Your task to perform on an android device: Show the shopping cart on ebay.com. Search for "lg ultragear" on ebay.com, select the first entry, and add it to the cart. Image 0: 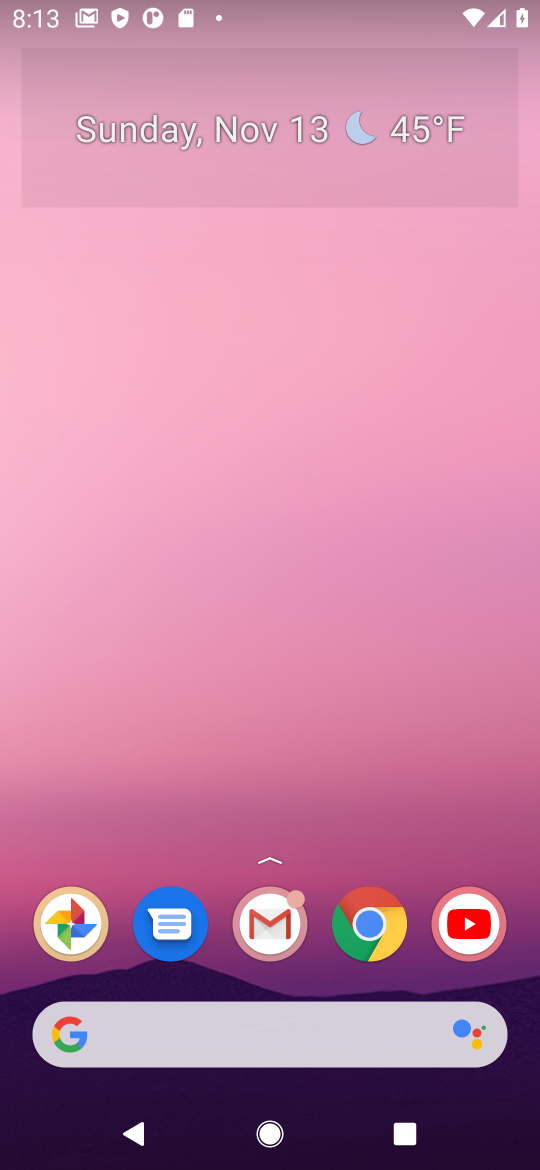
Step 0: click (356, 931)
Your task to perform on an android device: Show the shopping cart on ebay.com. Search for "lg ultragear" on ebay.com, select the first entry, and add it to the cart. Image 1: 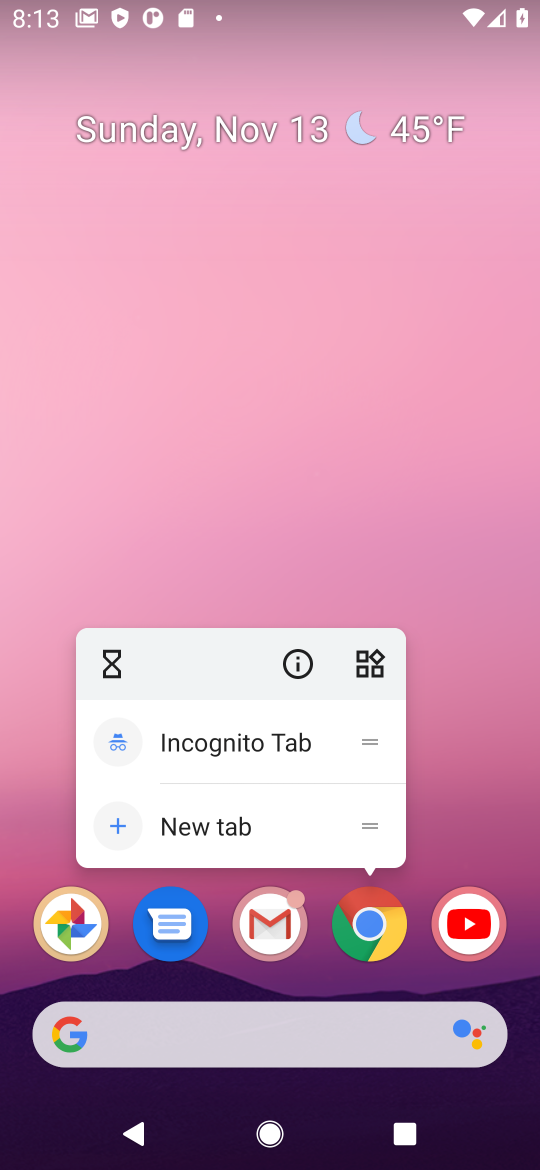
Step 1: click (356, 930)
Your task to perform on an android device: Show the shopping cart on ebay.com. Search for "lg ultragear" on ebay.com, select the first entry, and add it to the cart. Image 2: 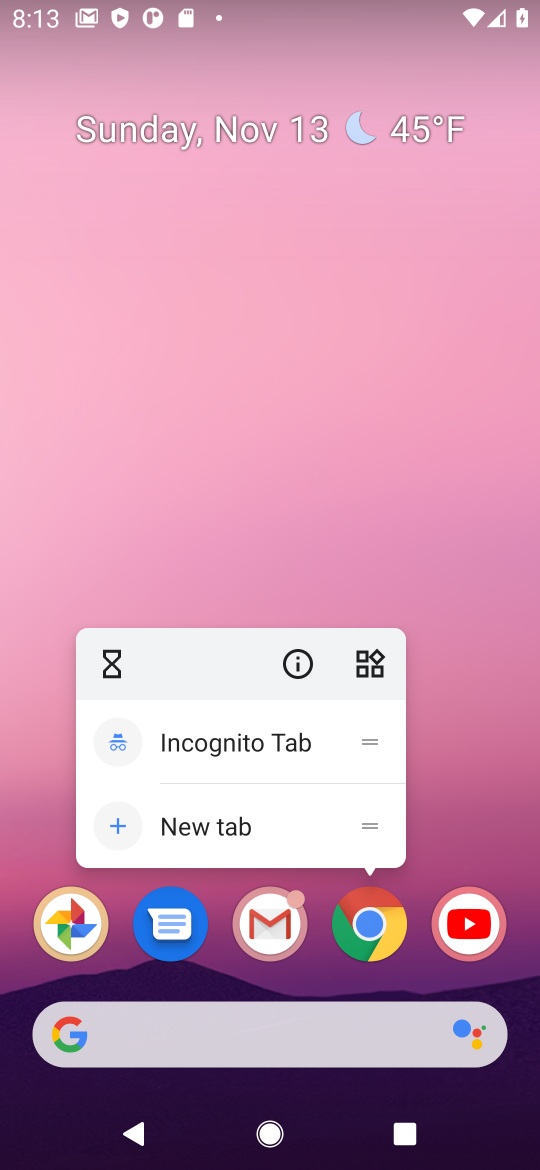
Step 2: click (374, 928)
Your task to perform on an android device: Show the shopping cart on ebay.com. Search for "lg ultragear" on ebay.com, select the first entry, and add it to the cart. Image 3: 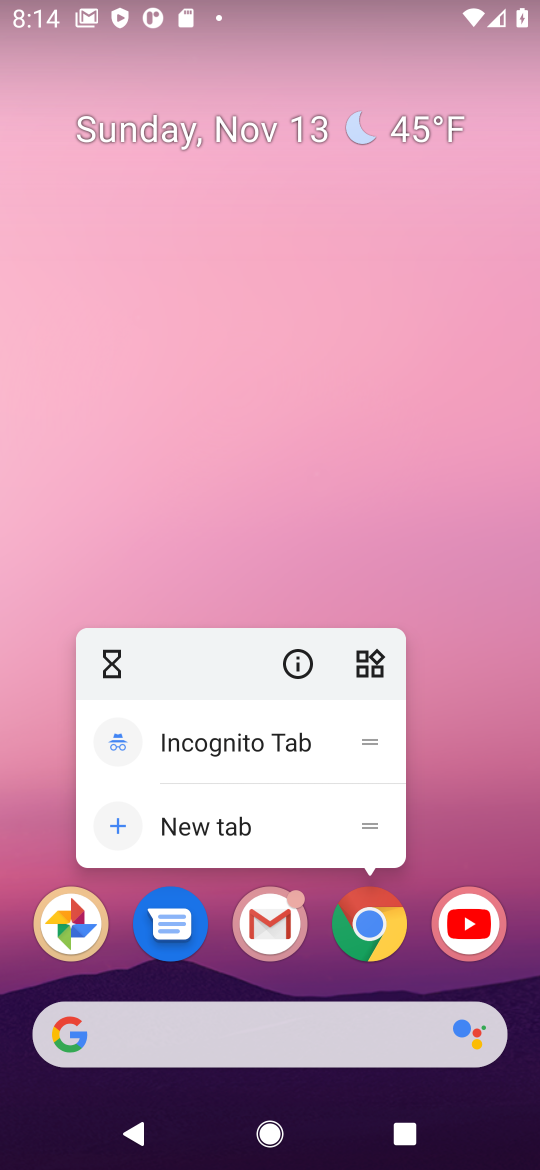
Step 3: click (374, 928)
Your task to perform on an android device: Show the shopping cart on ebay.com. Search for "lg ultragear" on ebay.com, select the first entry, and add it to the cart. Image 4: 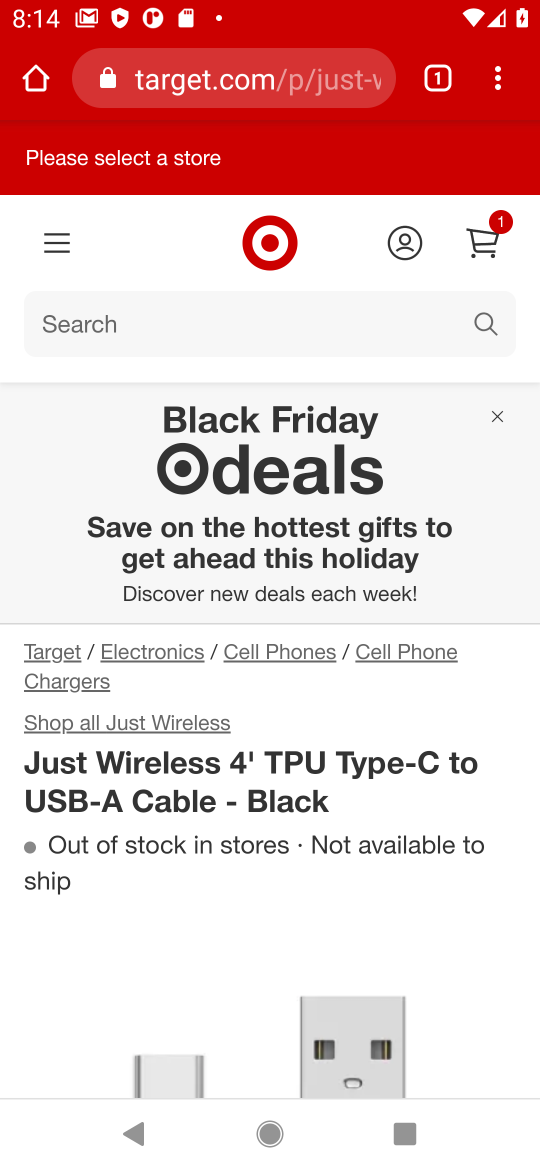
Step 4: click (295, 79)
Your task to perform on an android device: Show the shopping cart on ebay.com. Search for "lg ultragear" on ebay.com, select the first entry, and add it to the cart. Image 5: 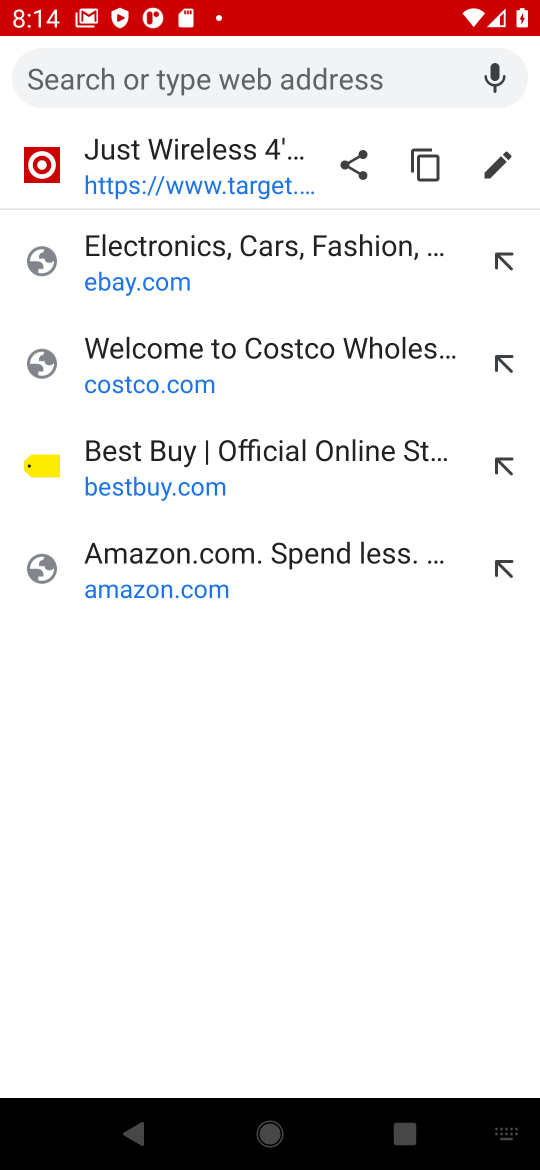
Step 5: click (159, 267)
Your task to perform on an android device: Show the shopping cart on ebay.com. Search for "lg ultragear" on ebay.com, select the first entry, and add it to the cart. Image 6: 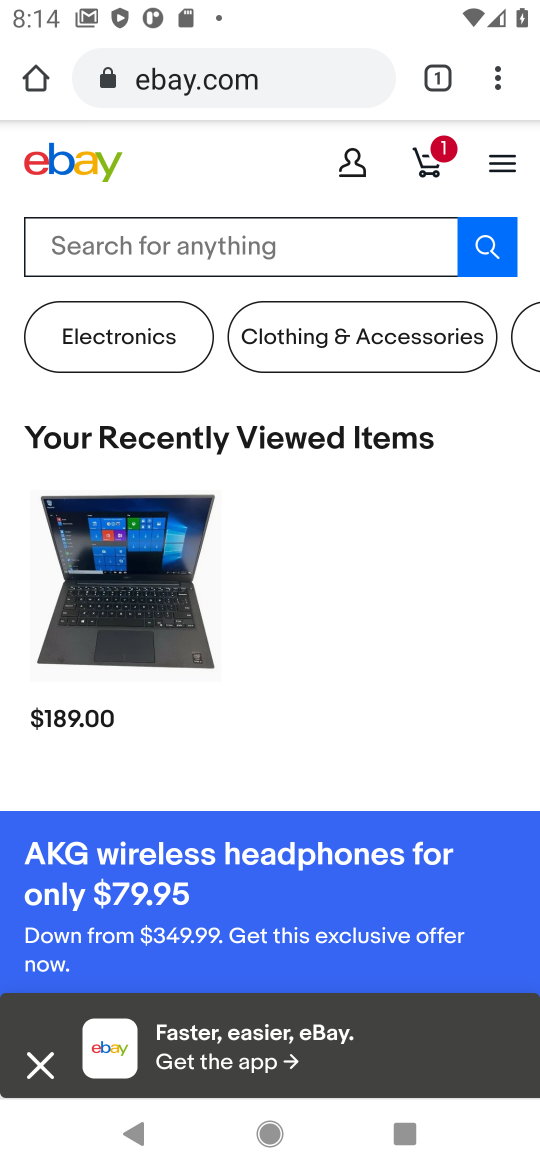
Step 6: click (221, 241)
Your task to perform on an android device: Show the shopping cart on ebay.com. Search for "lg ultragear" on ebay.com, select the first entry, and add it to the cart. Image 7: 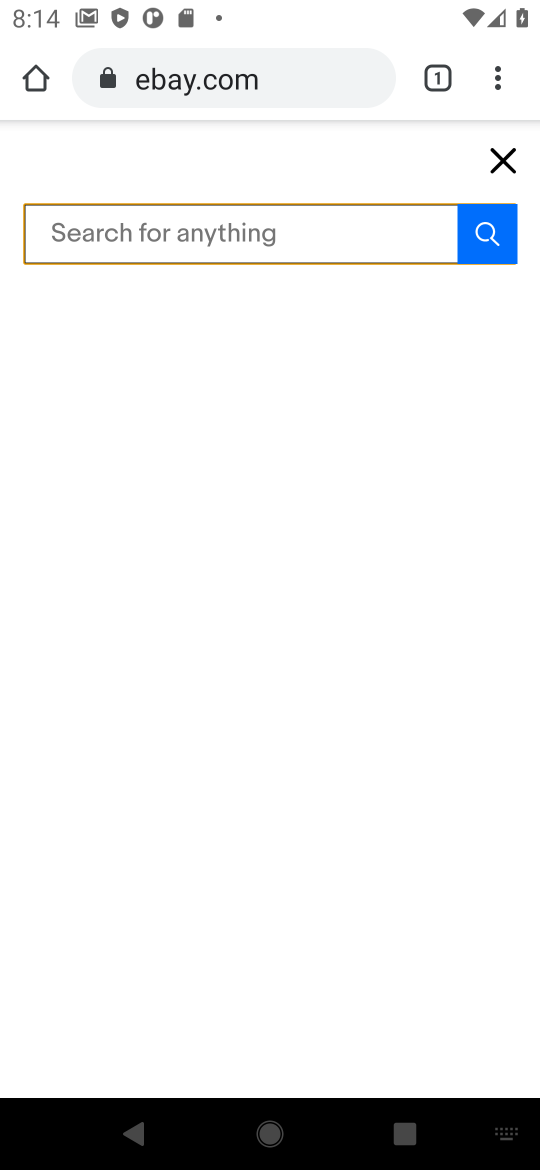
Step 7: type "lg ultragear"
Your task to perform on an android device: Show the shopping cart on ebay.com. Search for "lg ultragear" on ebay.com, select the first entry, and add it to the cart. Image 8: 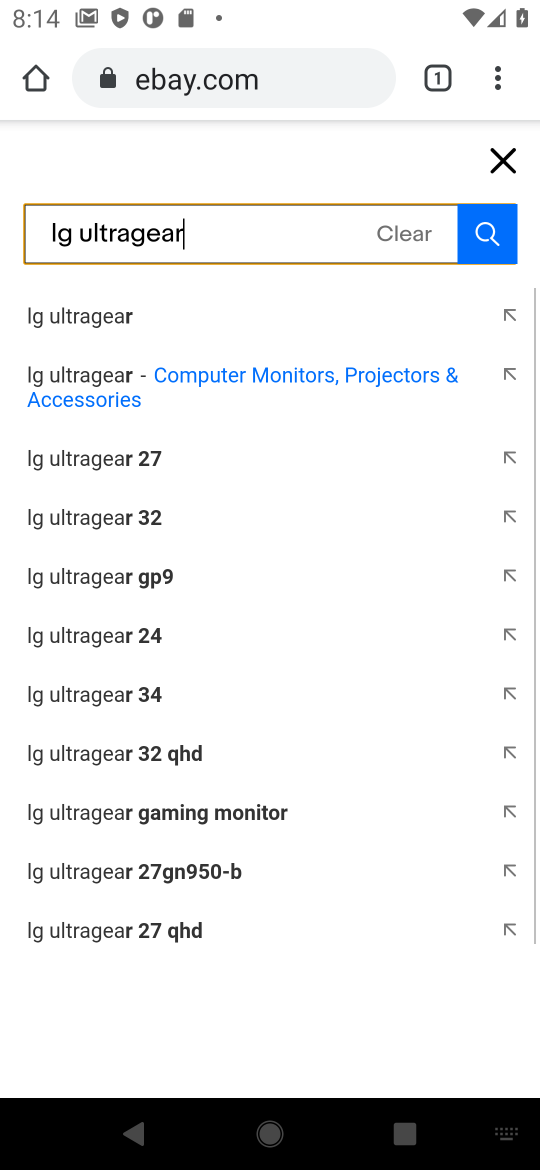
Step 8: press enter
Your task to perform on an android device: Show the shopping cart on ebay.com. Search for "lg ultragear" on ebay.com, select the first entry, and add it to the cart. Image 9: 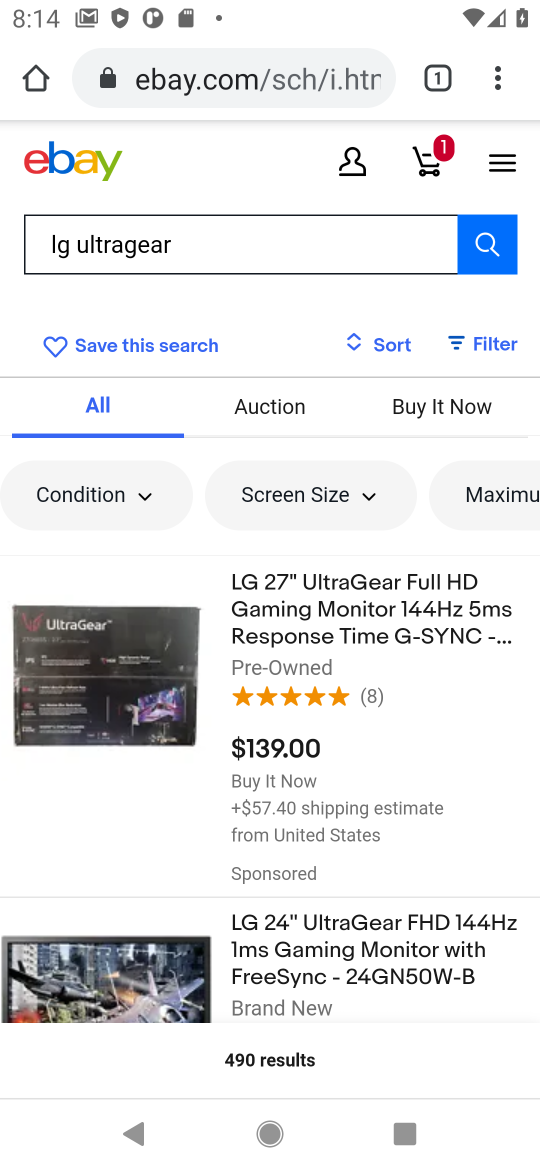
Step 9: click (365, 625)
Your task to perform on an android device: Show the shopping cart on ebay.com. Search for "lg ultragear" on ebay.com, select the first entry, and add it to the cart. Image 10: 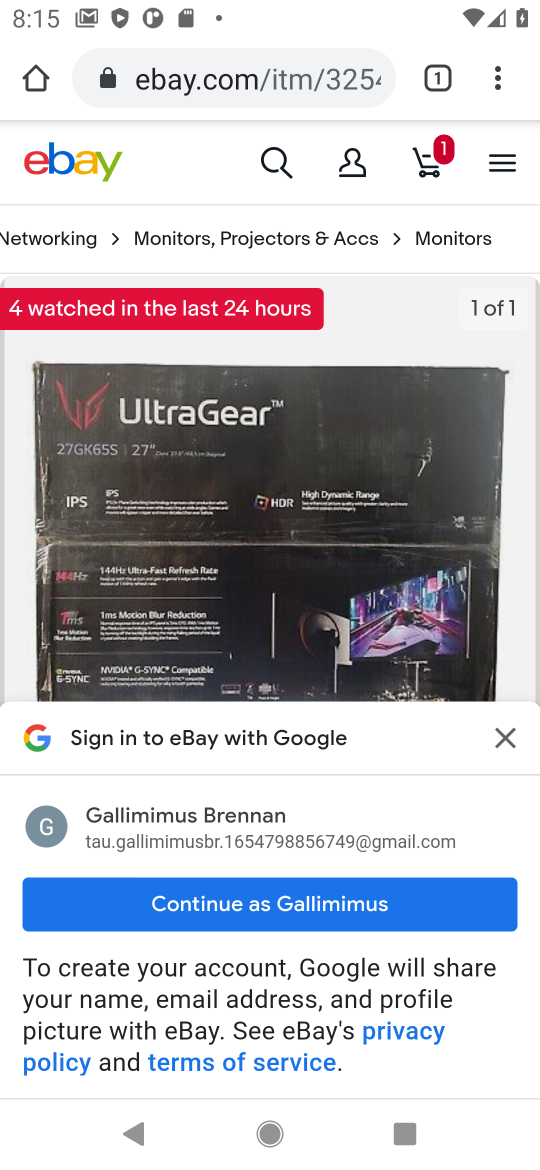
Step 10: drag from (216, 978) to (390, 556)
Your task to perform on an android device: Show the shopping cart on ebay.com. Search for "lg ultragear" on ebay.com, select the first entry, and add it to the cart. Image 11: 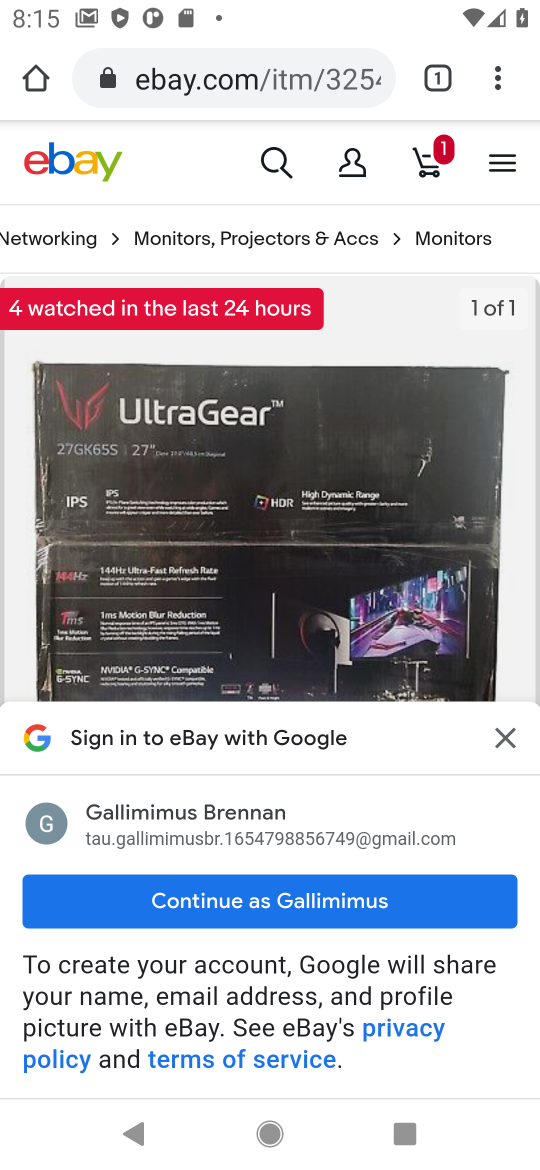
Step 11: click (507, 733)
Your task to perform on an android device: Show the shopping cart on ebay.com. Search for "lg ultragear" on ebay.com, select the first entry, and add it to the cart. Image 12: 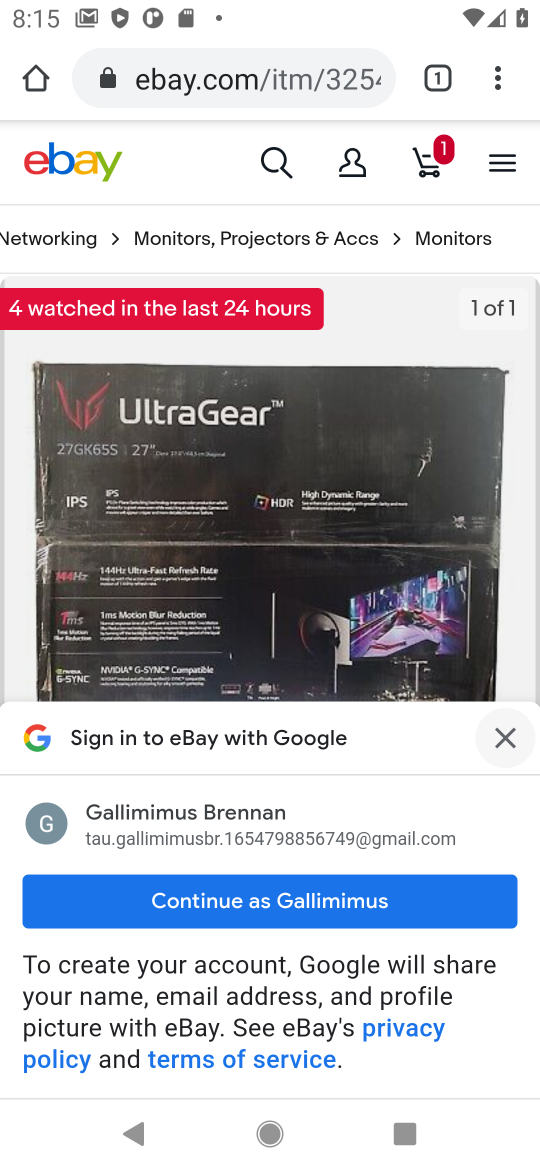
Step 12: click (507, 731)
Your task to perform on an android device: Show the shopping cart on ebay.com. Search for "lg ultragear" on ebay.com, select the first entry, and add it to the cart. Image 13: 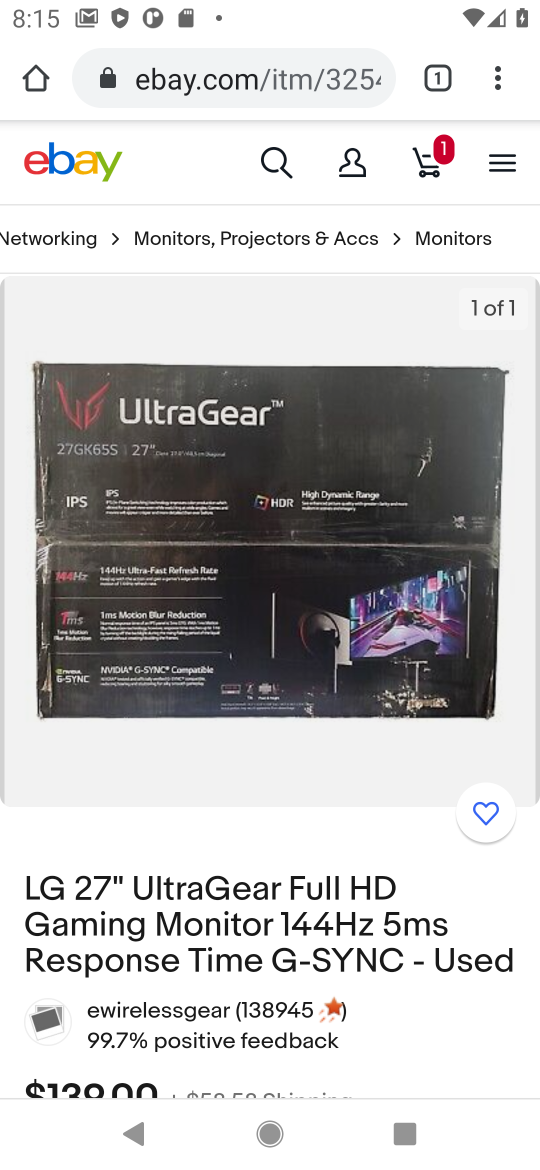
Step 13: drag from (317, 892) to (448, 317)
Your task to perform on an android device: Show the shopping cart on ebay.com. Search for "lg ultragear" on ebay.com, select the first entry, and add it to the cart. Image 14: 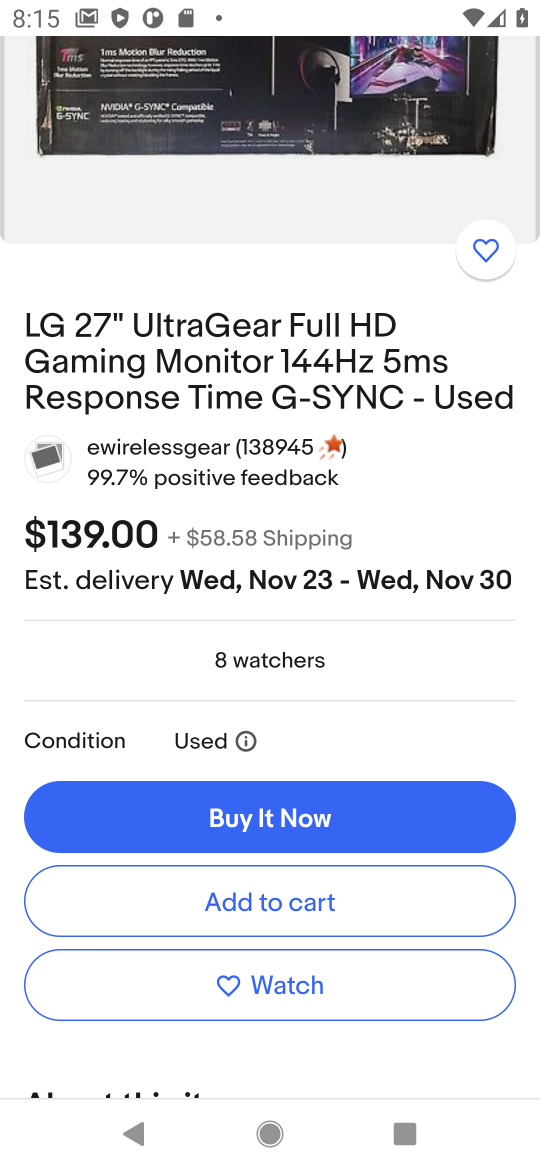
Step 14: click (241, 899)
Your task to perform on an android device: Show the shopping cart on ebay.com. Search for "lg ultragear" on ebay.com, select the first entry, and add it to the cart. Image 15: 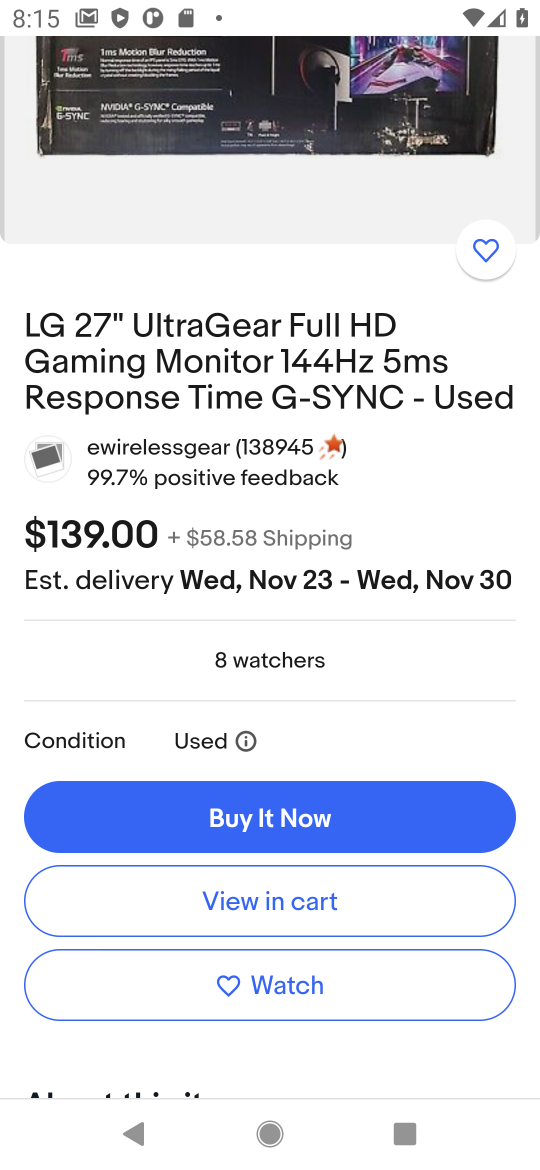
Step 15: click (241, 897)
Your task to perform on an android device: Show the shopping cart on ebay.com. Search for "lg ultragear" on ebay.com, select the first entry, and add it to the cart. Image 16: 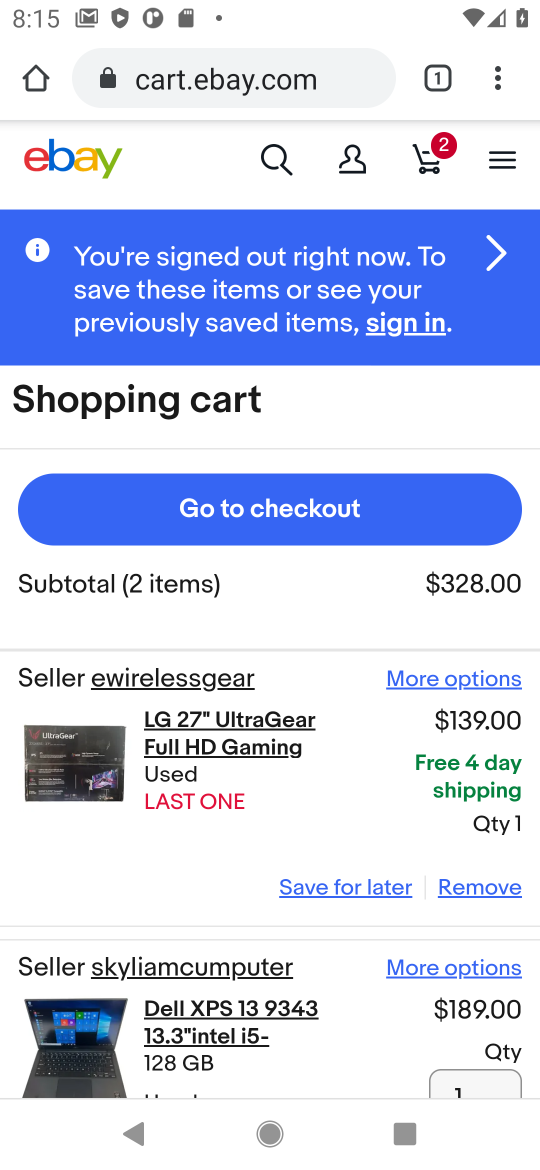
Step 16: drag from (351, 1063) to (492, 778)
Your task to perform on an android device: Show the shopping cart on ebay.com. Search for "lg ultragear" on ebay.com, select the first entry, and add it to the cart. Image 17: 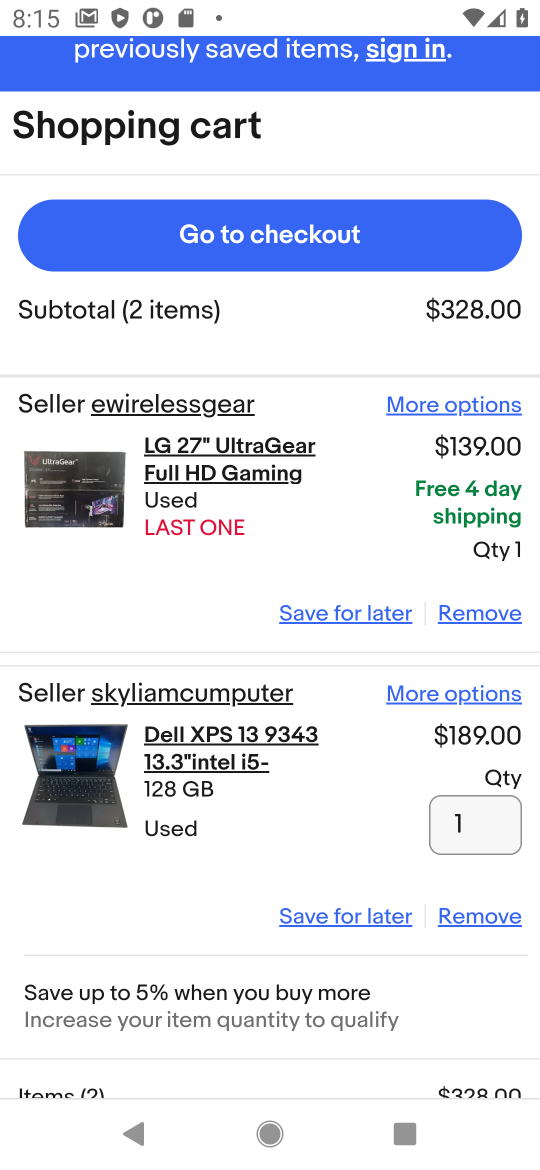
Step 17: click (465, 912)
Your task to perform on an android device: Show the shopping cart on ebay.com. Search for "lg ultragear" on ebay.com, select the first entry, and add it to the cart. Image 18: 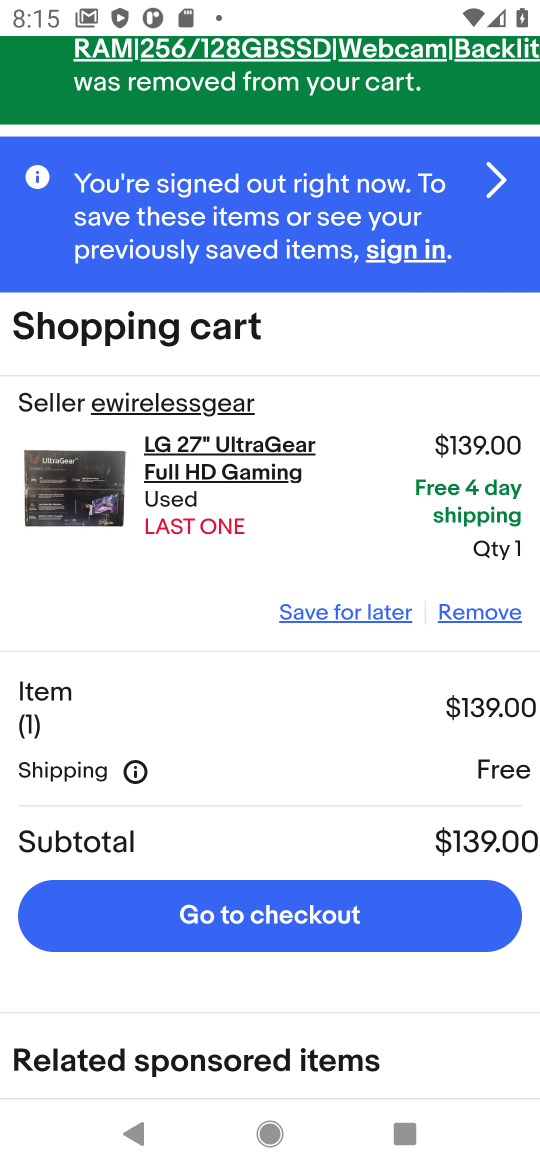
Step 18: task complete